Your task to perform on an android device: refresh tabs in the chrome app Image 0: 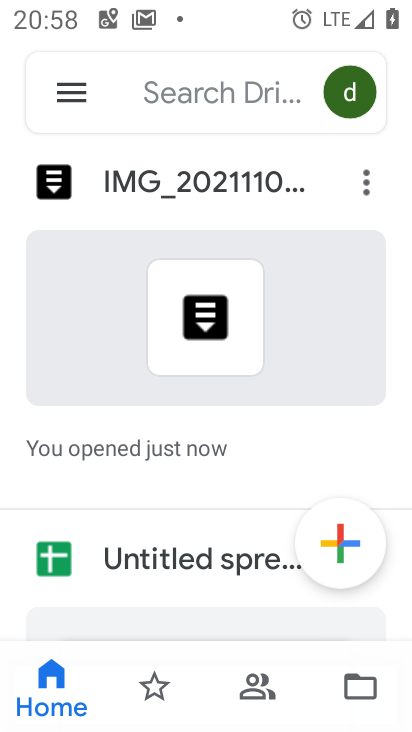
Step 0: press home button
Your task to perform on an android device: refresh tabs in the chrome app Image 1: 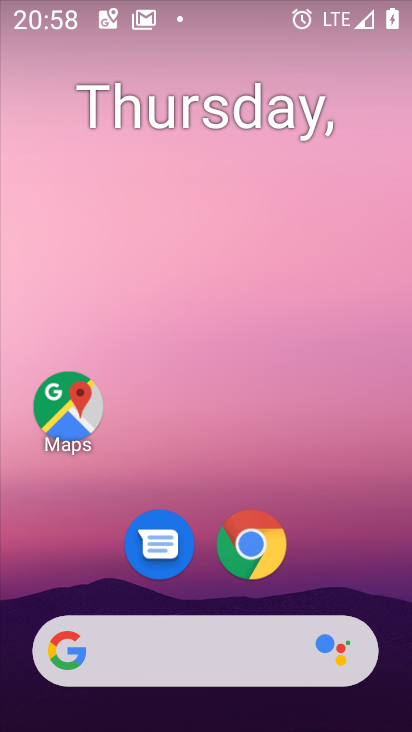
Step 1: click (249, 545)
Your task to perform on an android device: refresh tabs in the chrome app Image 2: 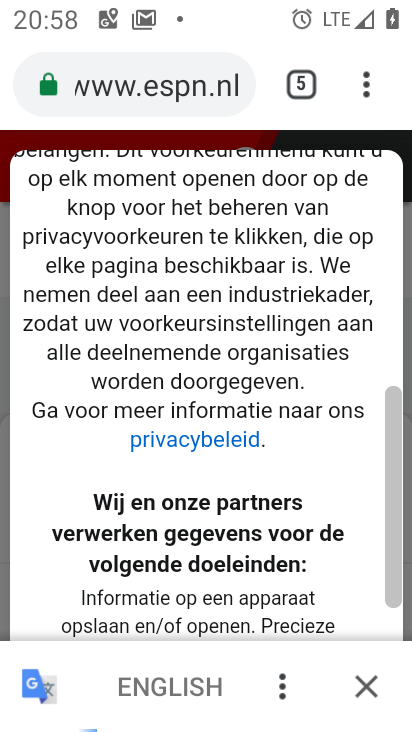
Step 2: click (378, 85)
Your task to perform on an android device: refresh tabs in the chrome app Image 3: 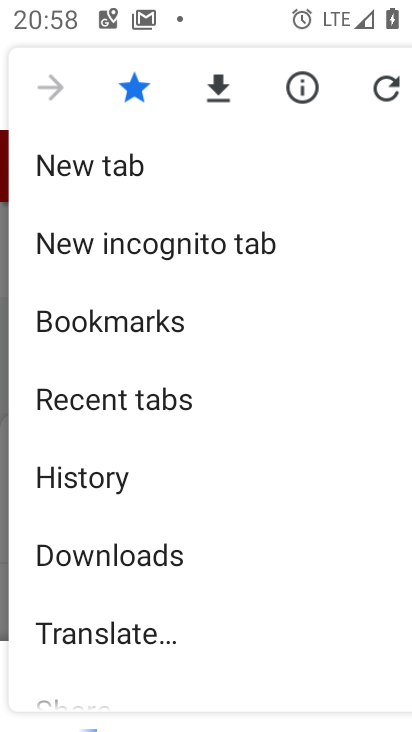
Step 3: click (378, 85)
Your task to perform on an android device: refresh tabs in the chrome app Image 4: 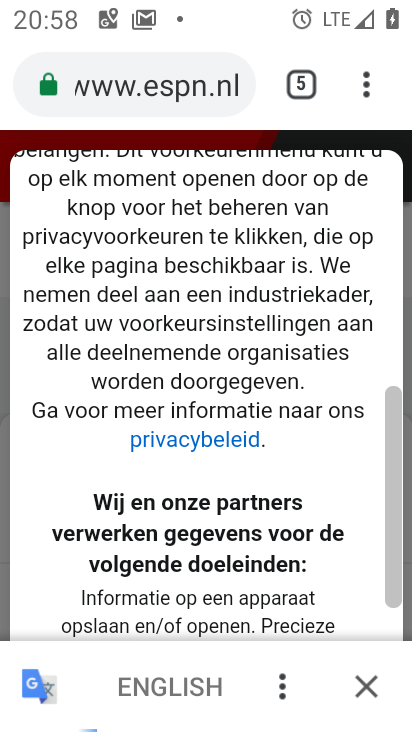
Step 4: task complete